Your task to perform on an android device: check android version Image 0: 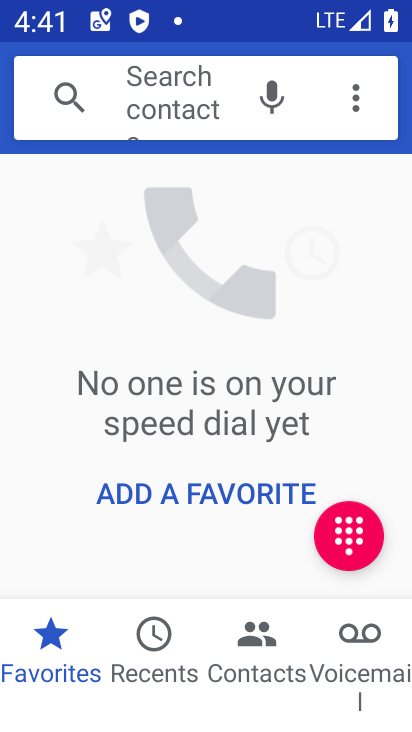
Step 0: drag from (382, 580) to (238, 226)
Your task to perform on an android device: check android version Image 1: 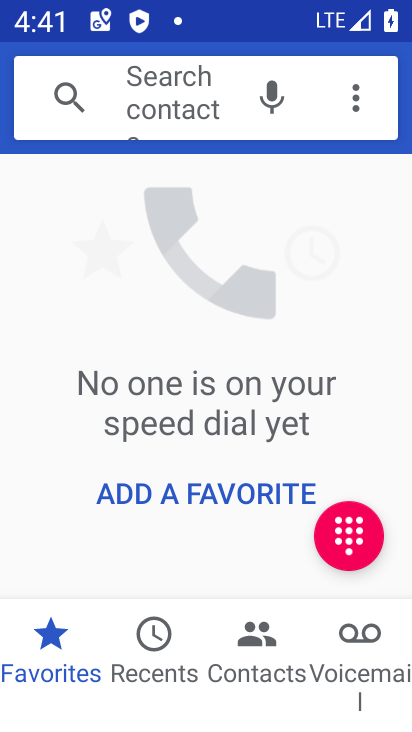
Step 1: press home button
Your task to perform on an android device: check android version Image 2: 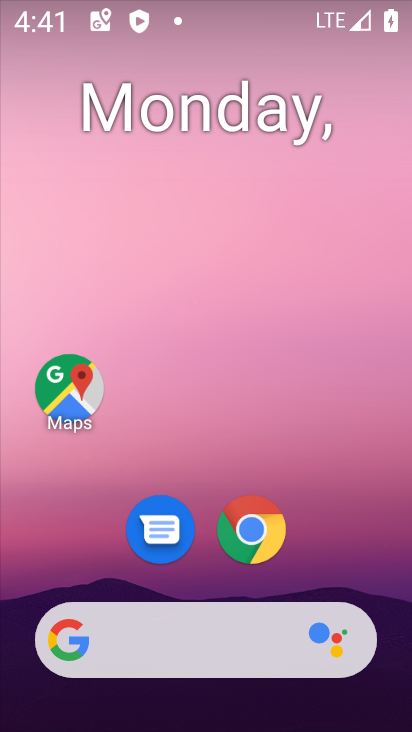
Step 2: drag from (372, 588) to (268, 267)
Your task to perform on an android device: check android version Image 3: 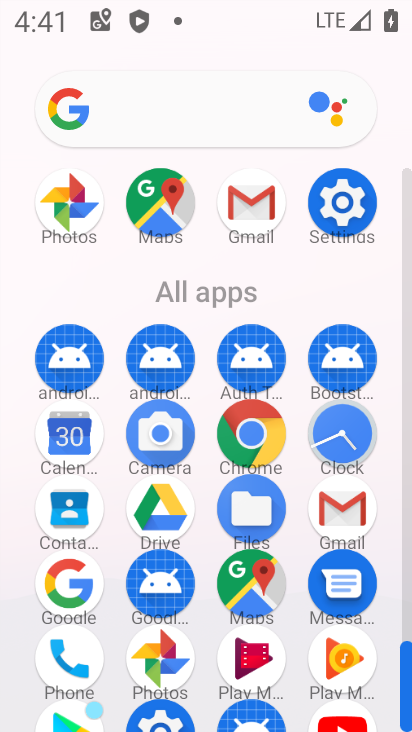
Step 3: click (341, 224)
Your task to perform on an android device: check android version Image 4: 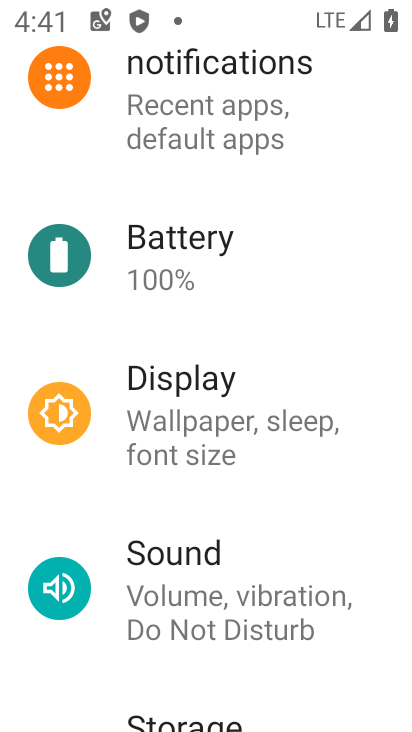
Step 4: drag from (261, 654) to (222, 56)
Your task to perform on an android device: check android version Image 5: 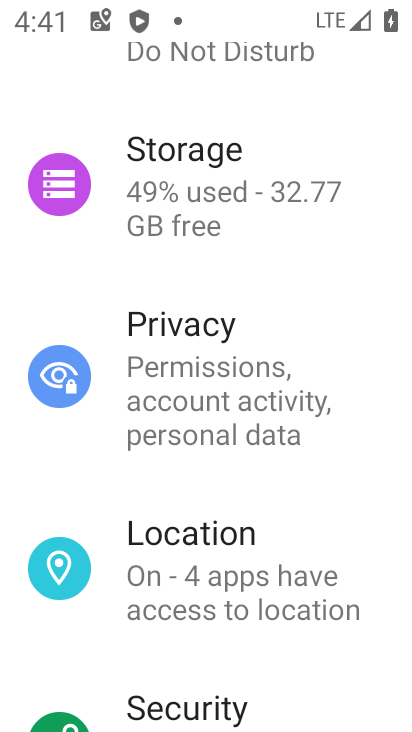
Step 5: drag from (318, 658) to (269, 349)
Your task to perform on an android device: check android version Image 6: 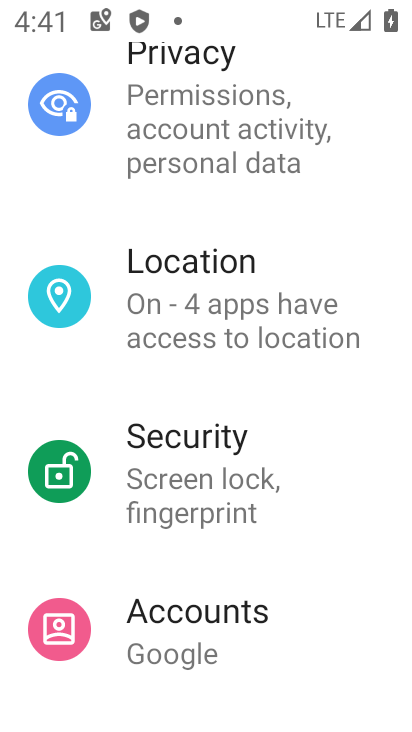
Step 6: drag from (274, 700) to (247, 273)
Your task to perform on an android device: check android version Image 7: 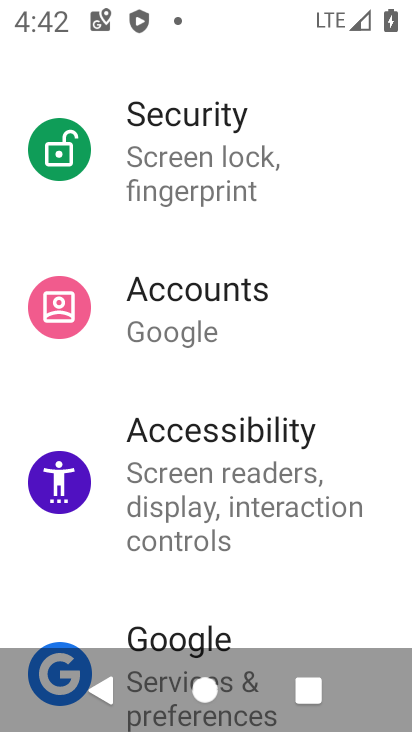
Step 7: drag from (277, 555) to (245, 79)
Your task to perform on an android device: check android version Image 8: 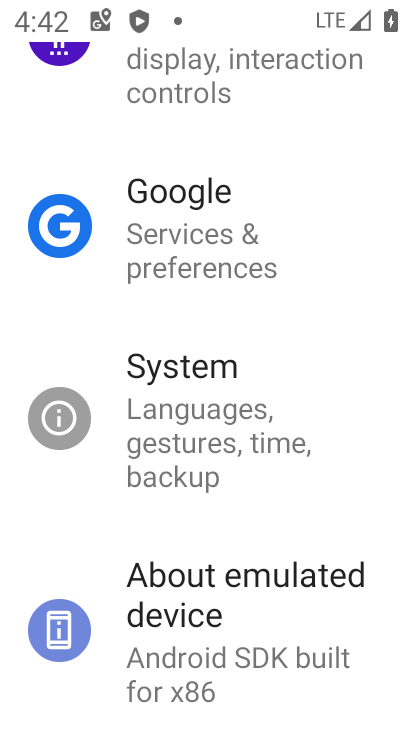
Step 8: click (293, 656)
Your task to perform on an android device: check android version Image 9: 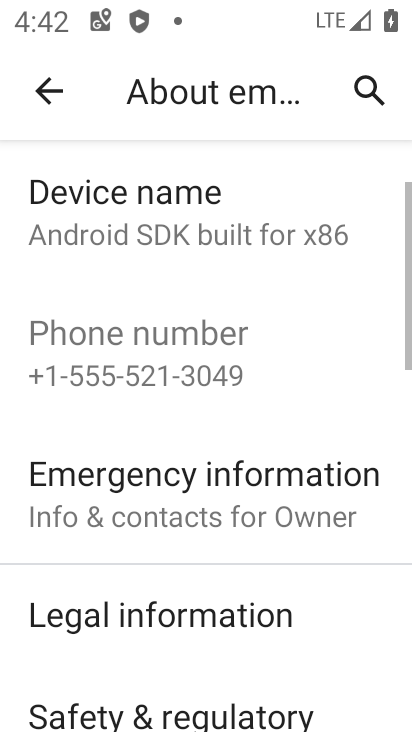
Step 9: drag from (302, 663) to (235, 265)
Your task to perform on an android device: check android version Image 10: 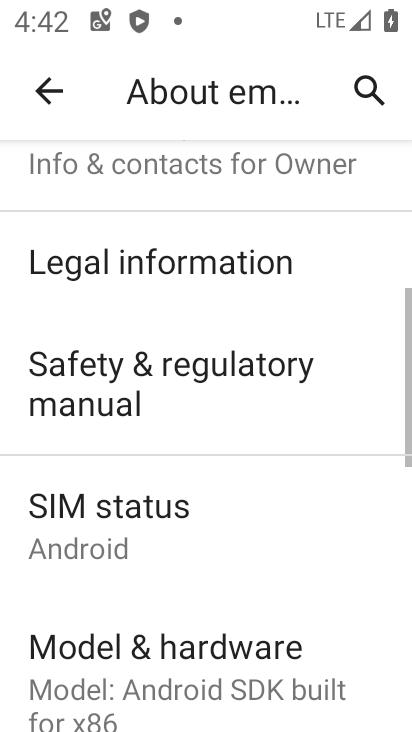
Step 10: drag from (252, 521) to (223, 195)
Your task to perform on an android device: check android version Image 11: 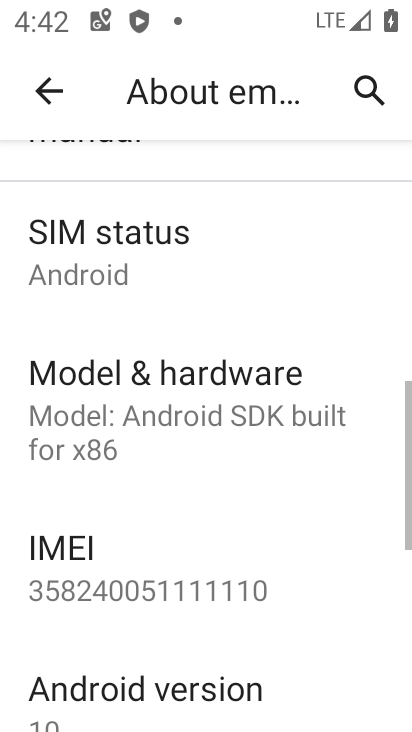
Step 11: drag from (202, 648) to (188, 334)
Your task to perform on an android device: check android version Image 12: 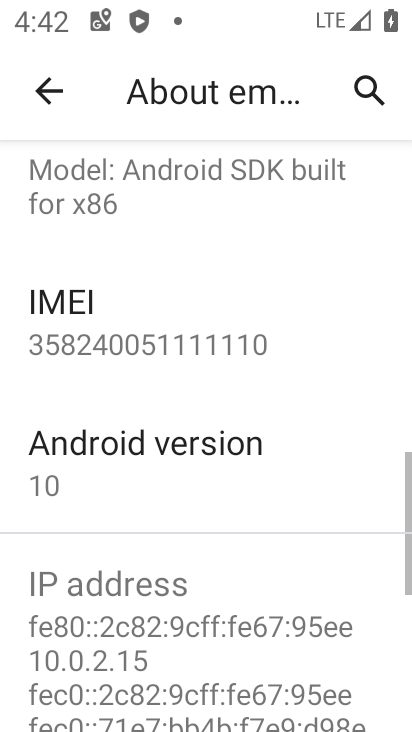
Step 12: click (206, 489)
Your task to perform on an android device: check android version Image 13: 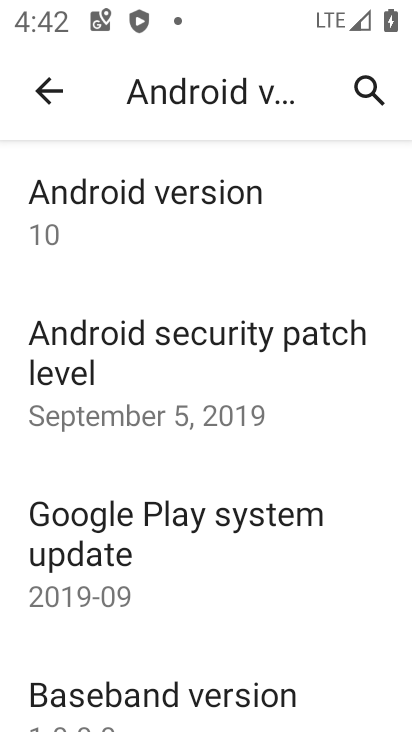
Step 13: task complete